Your task to perform on an android device: Show me some nice wallpapers for my desktop Image 0: 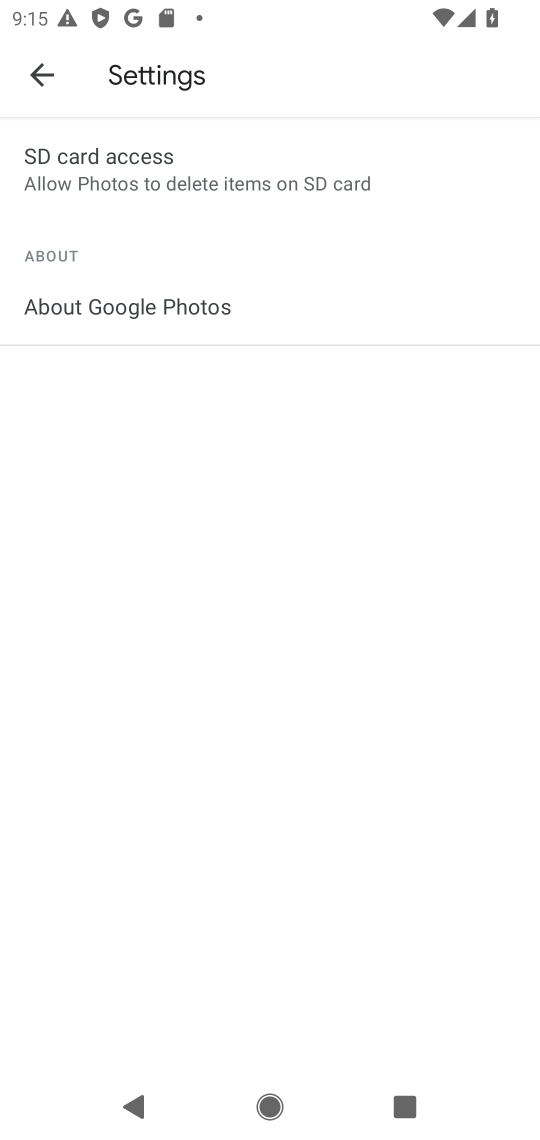
Step 0: press home button
Your task to perform on an android device: Show me some nice wallpapers for my desktop Image 1: 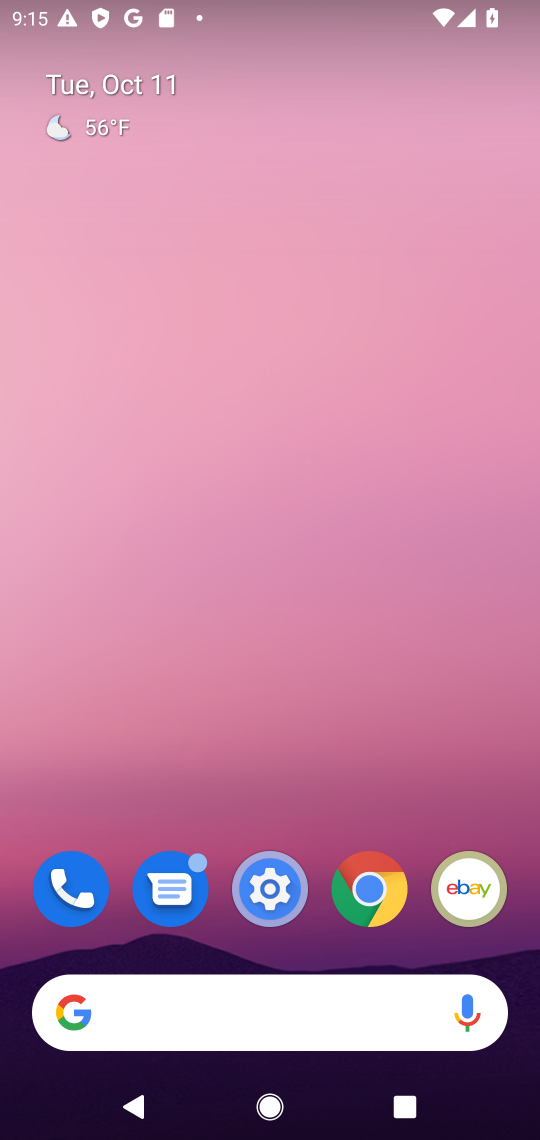
Step 1: click (214, 1028)
Your task to perform on an android device: Show me some nice wallpapers for my desktop Image 2: 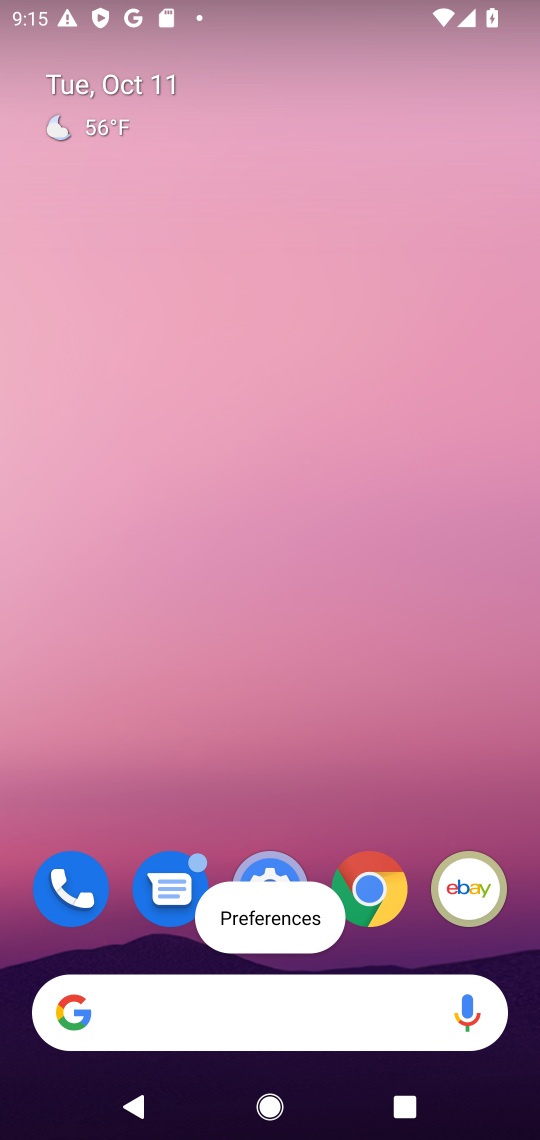
Step 2: click (148, 1040)
Your task to perform on an android device: Show me some nice wallpapers for my desktop Image 3: 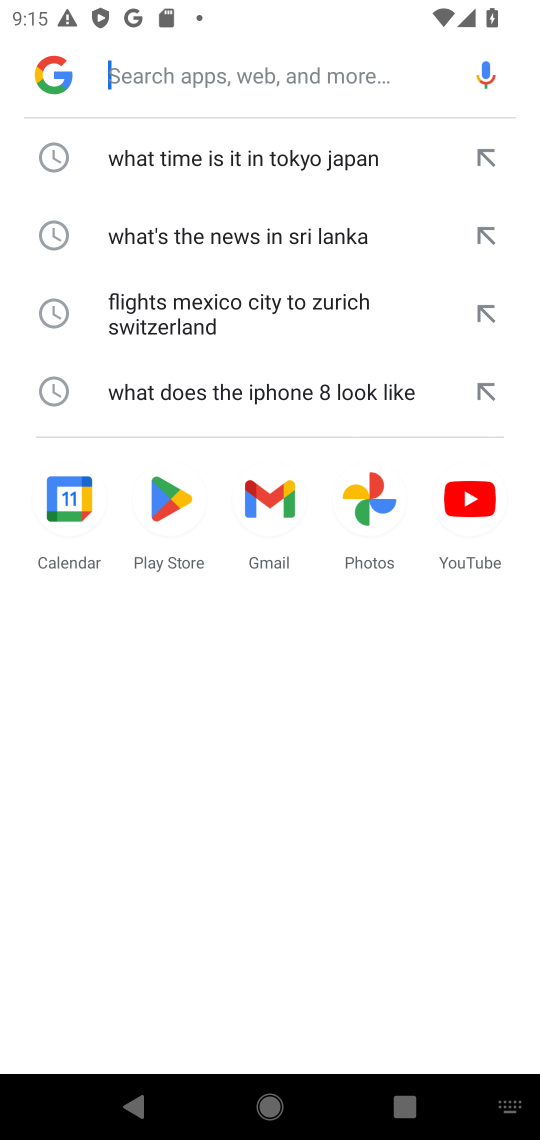
Step 3: click (182, 64)
Your task to perform on an android device: Show me some nice wallpapers for my desktop Image 4: 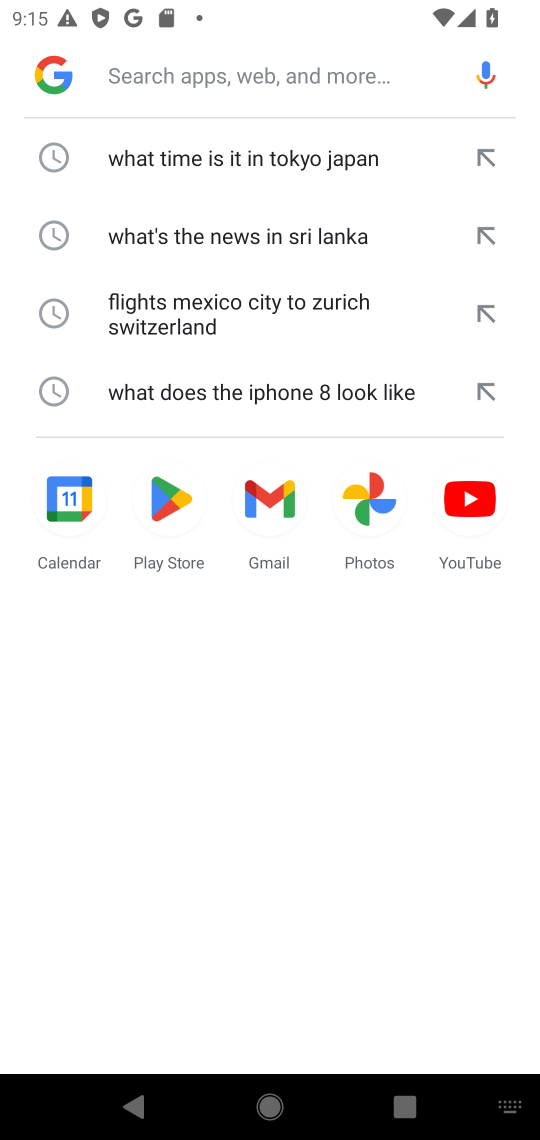
Step 4: type " some nice wallpapers for my desktop"
Your task to perform on an android device: Show me some nice wallpapers for my desktop Image 5: 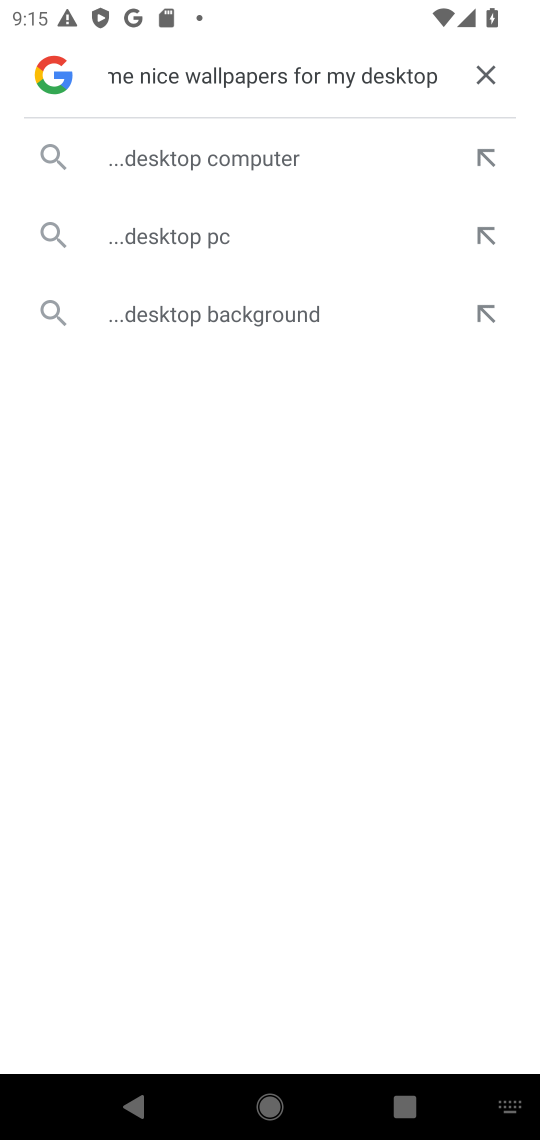
Step 5: click (241, 151)
Your task to perform on an android device: Show me some nice wallpapers for my desktop Image 6: 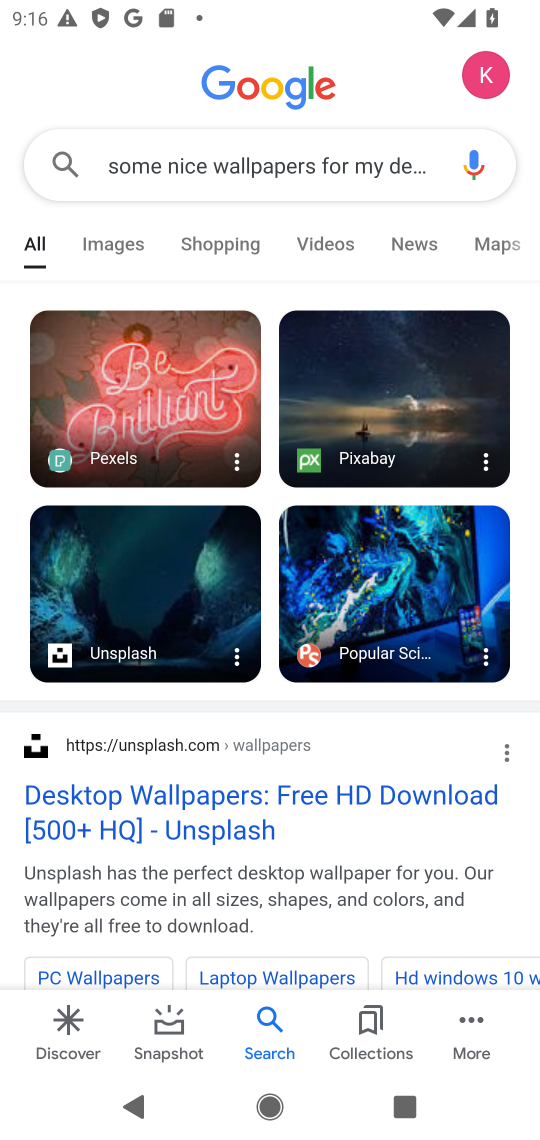
Step 6: task complete